Your task to perform on an android device: open device folders in google photos Image 0: 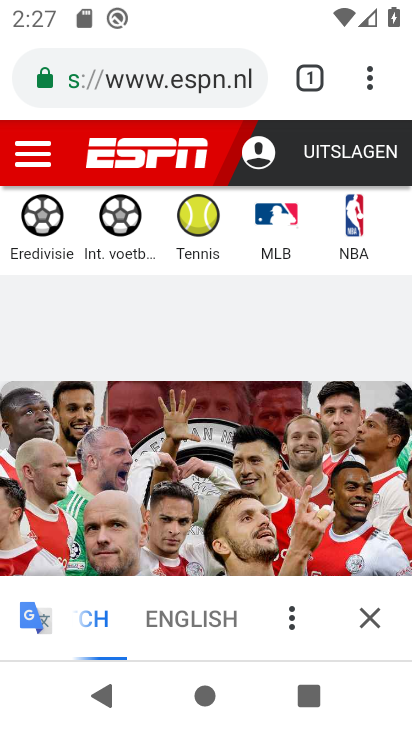
Step 0: press home button
Your task to perform on an android device: open device folders in google photos Image 1: 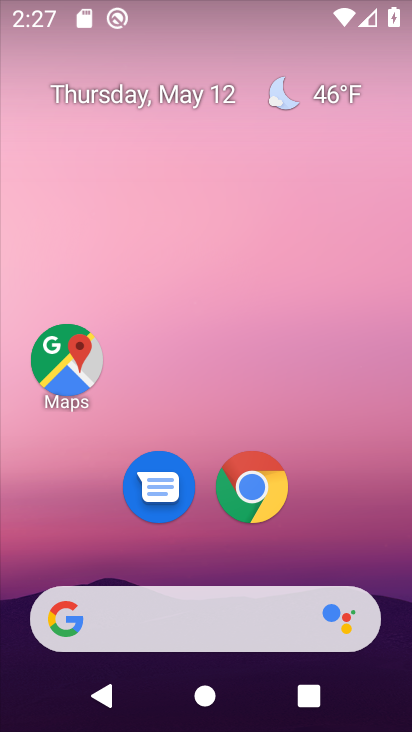
Step 1: drag from (318, 539) to (399, 32)
Your task to perform on an android device: open device folders in google photos Image 2: 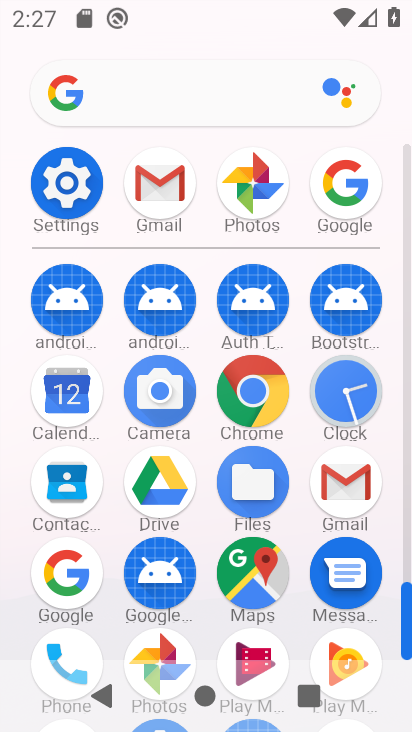
Step 2: click (255, 198)
Your task to perform on an android device: open device folders in google photos Image 3: 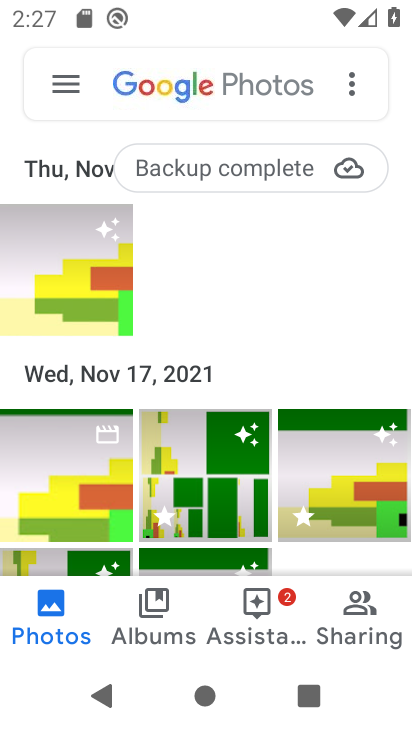
Step 3: click (49, 71)
Your task to perform on an android device: open device folders in google photos Image 4: 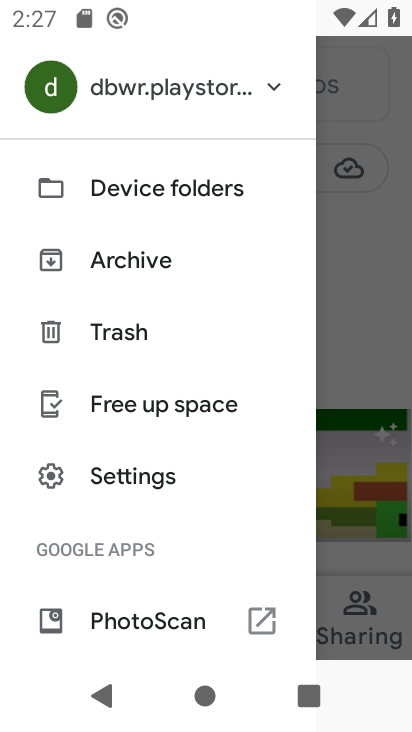
Step 4: click (166, 200)
Your task to perform on an android device: open device folders in google photos Image 5: 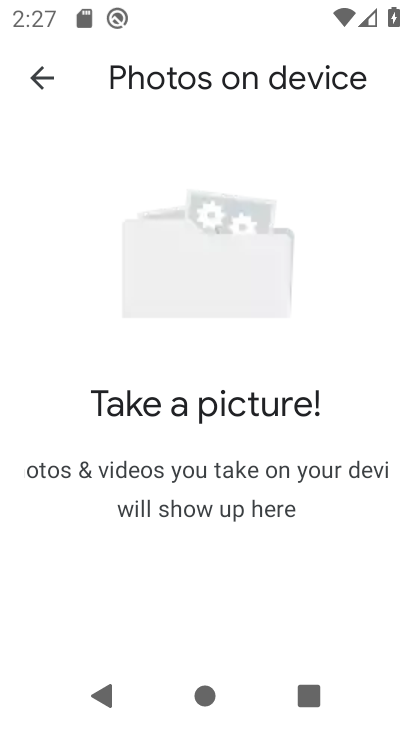
Step 5: task complete